Your task to perform on an android device: turn on priority inbox in the gmail app Image 0: 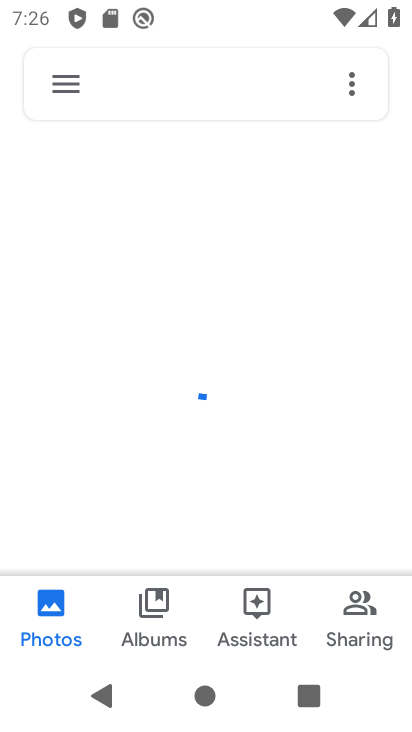
Step 0: press home button
Your task to perform on an android device: turn on priority inbox in the gmail app Image 1: 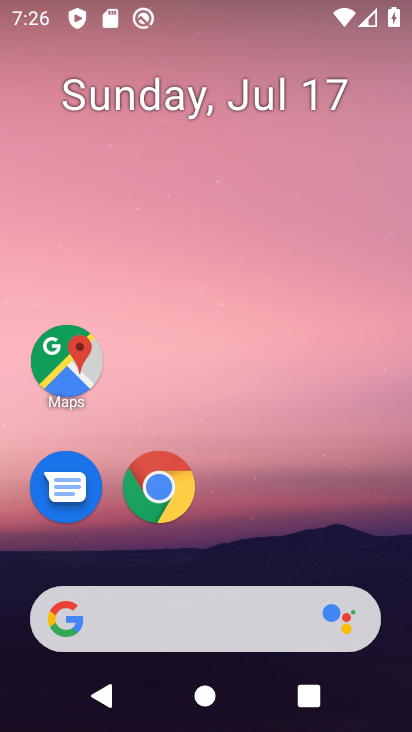
Step 1: drag from (338, 517) to (352, 104)
Your task to perform on an android device: turn on priority inbox in the gmail app Image 2: 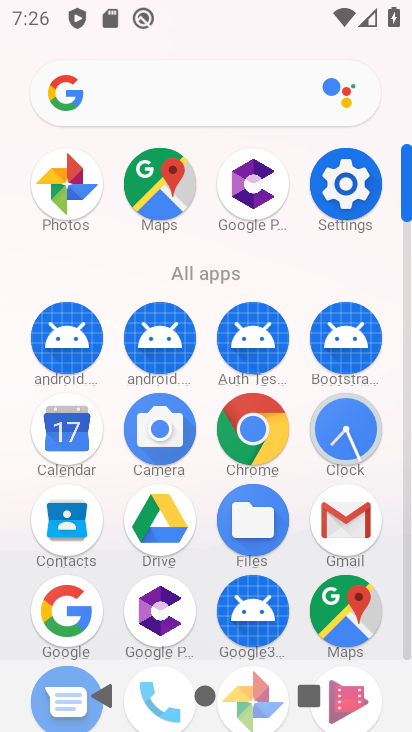
Step 2: click (361, 524)
Your task to perform on an android device: turn on priority inbox in the gmail app Image 3: 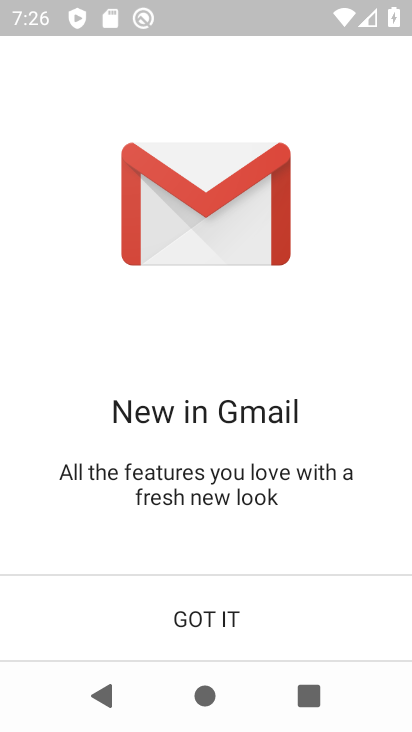
Step 3: click (406, 604)
Your task to perform on an android device: turn on priority inbox in the gmail app Image 4: 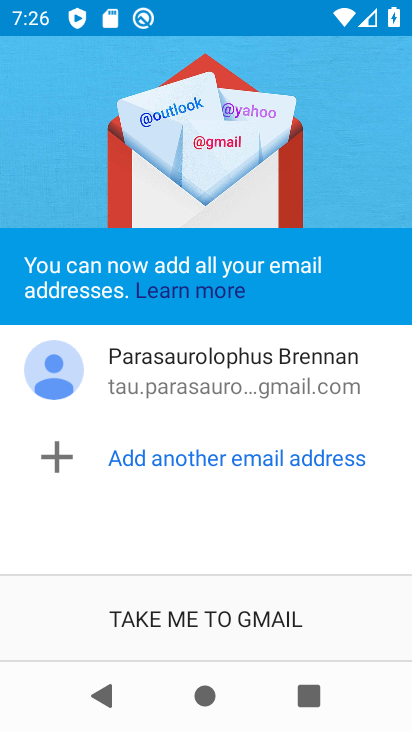
Step 4: click (228, 620)
Your task to perform on an android device: turn on priority inbox in the gmail app Image 5: 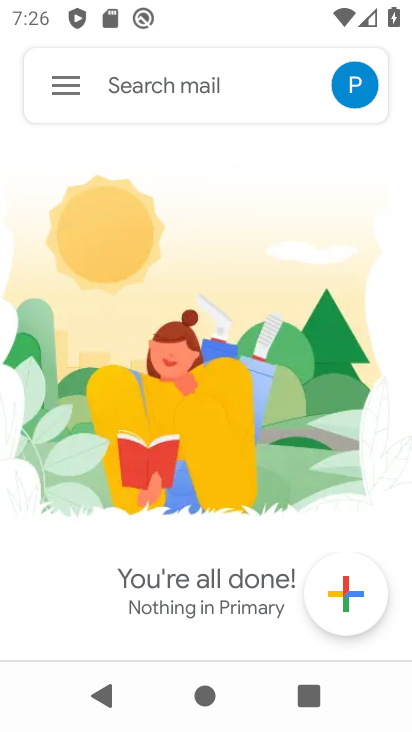
Step 5: click (68, 83)
Your task to perform on an android device: turn on priority inbox in the gmail app Image 6: 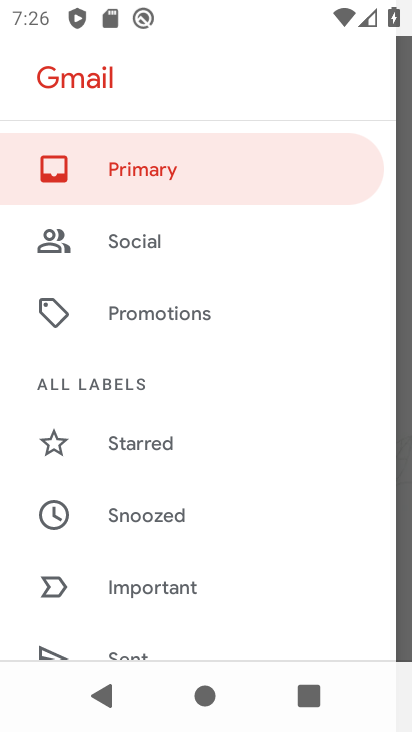
Step 6: drag from (263, 374) to (266, 331)
Your task to perform on an android device: turn on priority inbox in the gmail app Image 7: 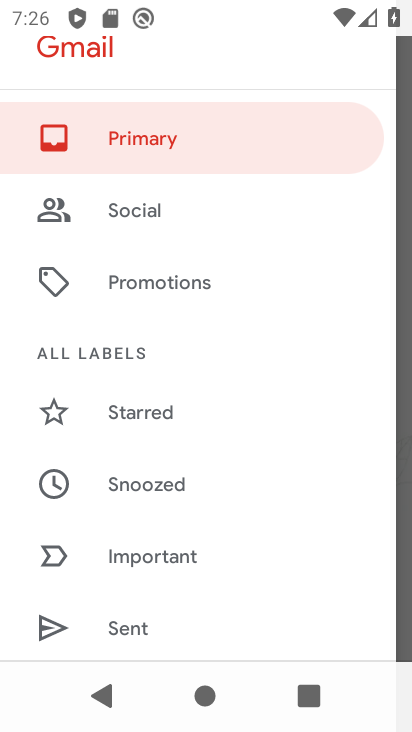
Step 7: drag from (295, 446) to (282, 352)
Your task to perform on an android device: turn on priority inbox in the gmail app Image 8: 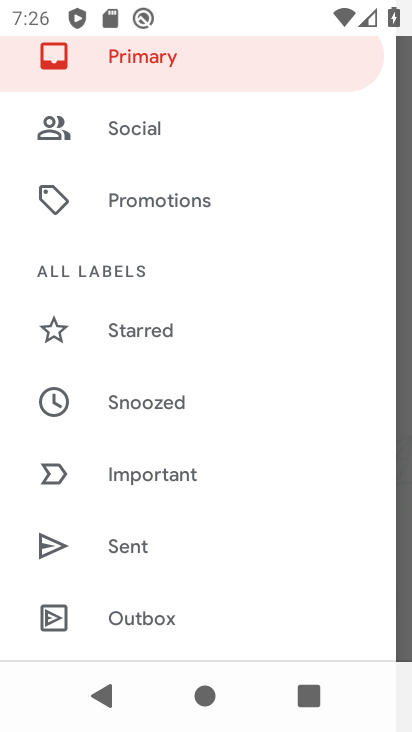
Step 8: drag from (287, 433) to (290, 347)
Your task to perform on an android device: turn on priority inbox in the gmail app Image 9: 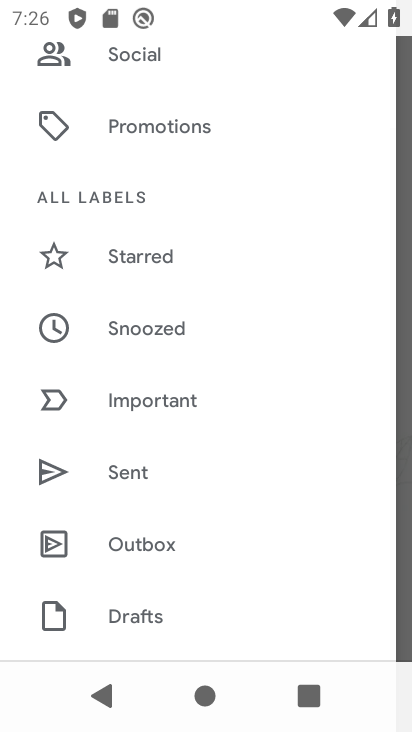
Step 9: drag from (267, 449) to (282, 346)
Your task to perform on an android device: turn on priority inbox in the gmail app Image 10: 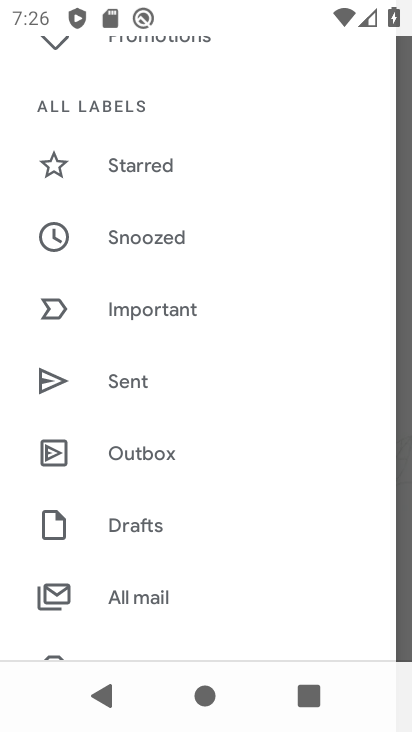
Step 10: drag from (307, 416) to (310, 333)
Your task to perform on an android device: turn on priority inbox in the gmail app Image 11: 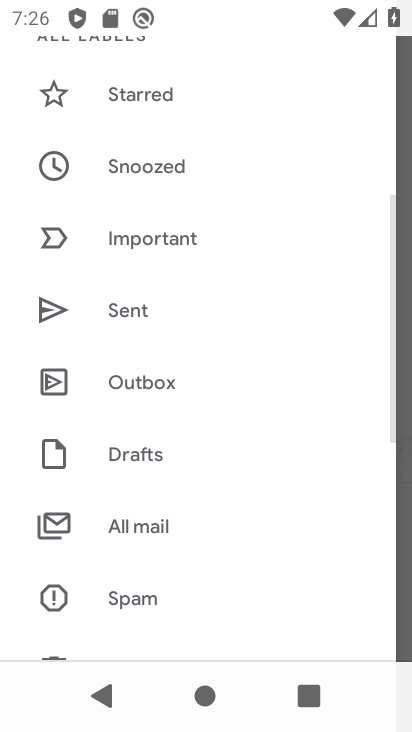
Step 11: drag from (313, 426) to (311, 328)
Your task to perform on an android device: turn on priority inbox in the gmail app Image 12: 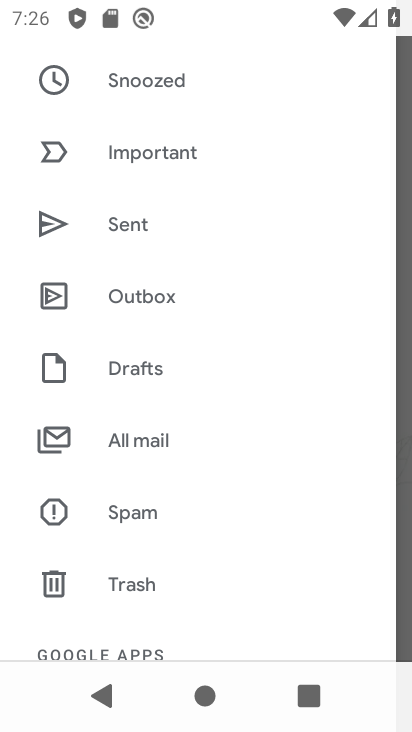
Step 12: drag from (311, 459) to (303, 356)
Your task to perform on an android device: turn on priority inbox in the gmail app Image 13: 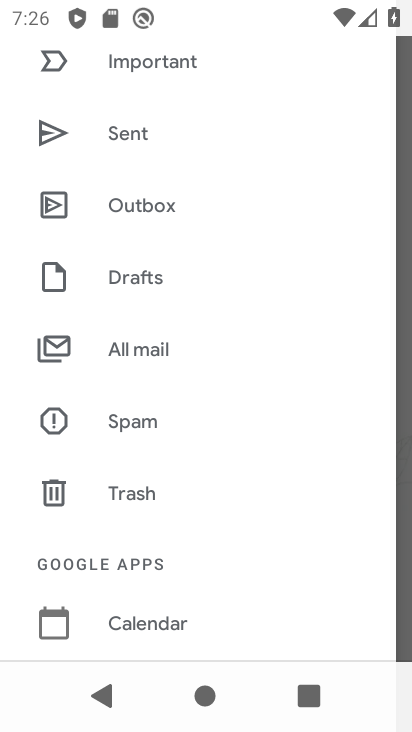
Step 13: drag from (301, 478) to (303, 378)
Your task to perform on an android device: turn on priority inbox in the gmail app Image 14: 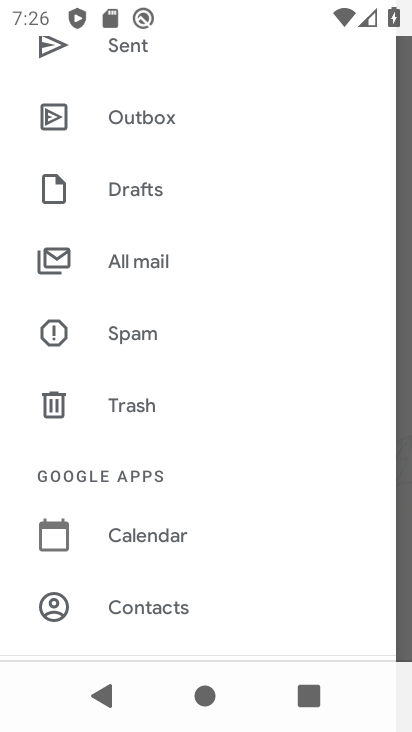
Step 14: drag from (295, 457) to (292, 348)
Your task to perform on an android device: turn on priority inbox in the gmail app Image 15: 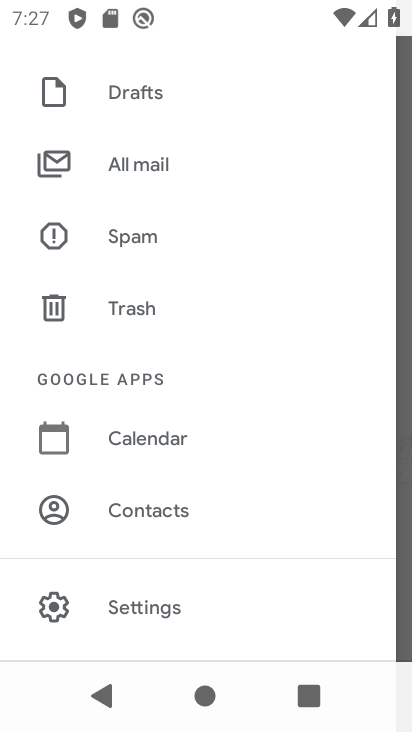
Step 15: drag from (286, 474) to (297, 363)
Your task to perform on an android device: turn on priority inbox in the gmail app Image 16: 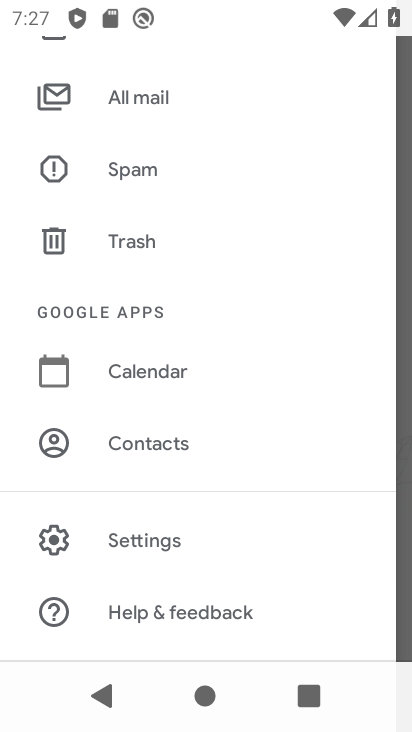
Step 16: click (245, 545)
Your task to perform on an android device: turn on priority inbox in the gmail app Image 17: 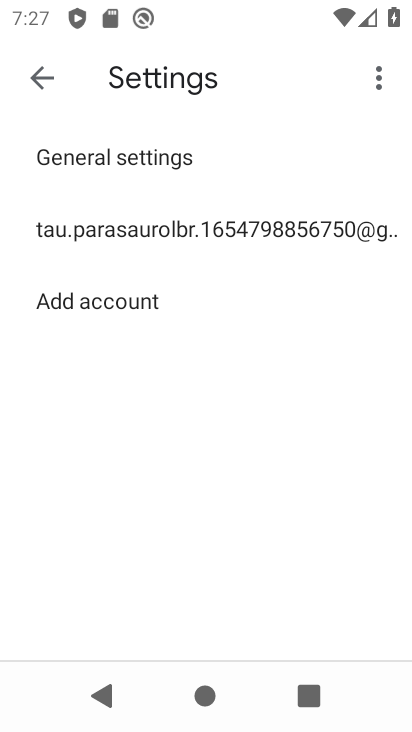
Step 17: click (270, 217)
Your task to perform on an android device: turn on priority inbox in the gmail app Image 18: 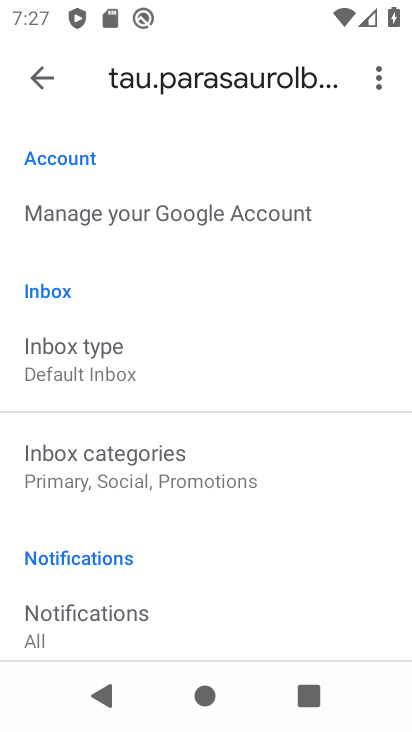
Step 18: click (182, 377)
Your task to perform on an android device: turn on priority inbox in the gmail app Image 19: 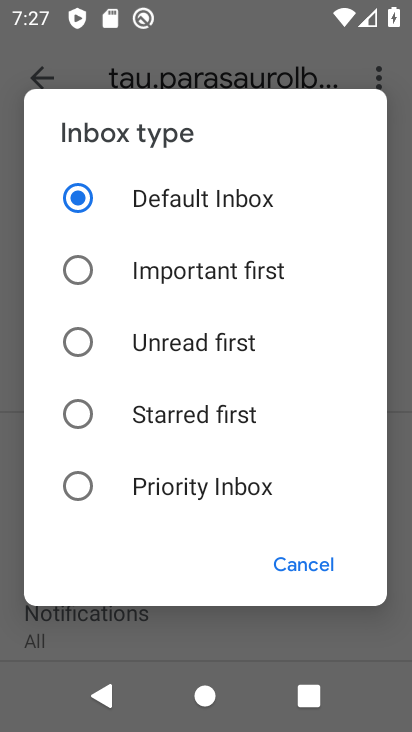
Step 19: click (192, 501)
Your task to perform on an android device: turn on priority inbox in the gmail app Image 20: 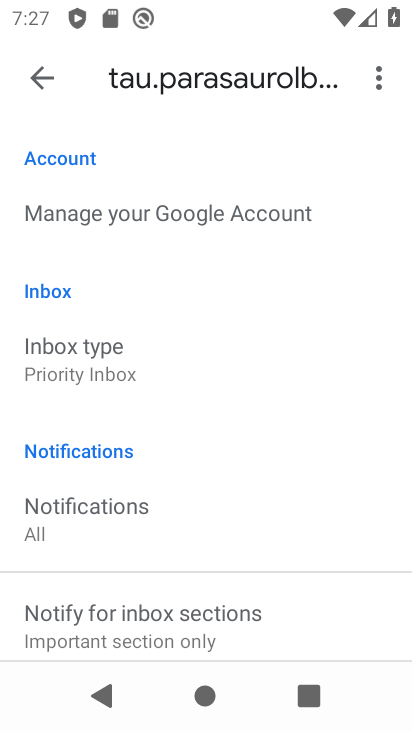
Step 20: task complete